Your task to perform on an android device: Go to eBay Image 0: 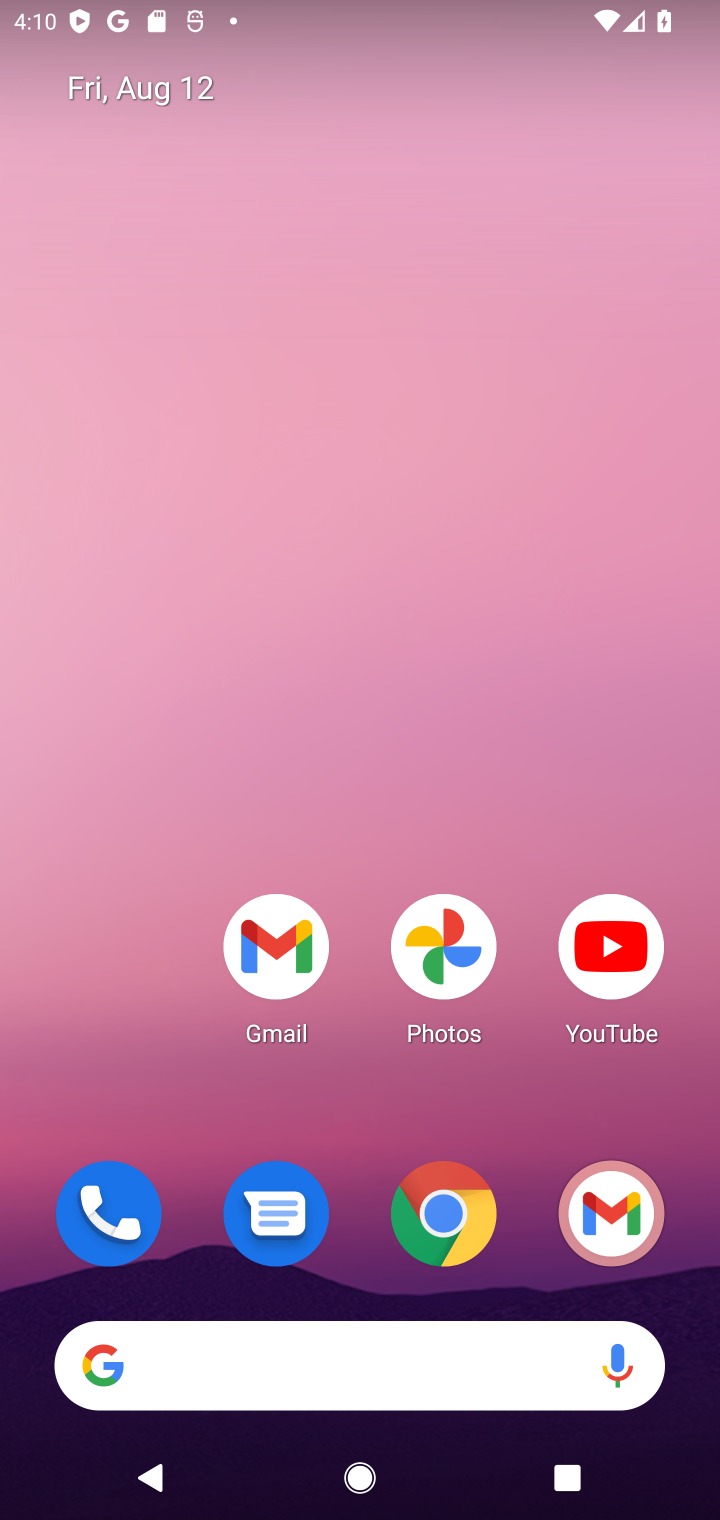
Step 0: drag from (360, 790) to (151, 8)
Your task to perform on an android device: Go to eBay Image 1: 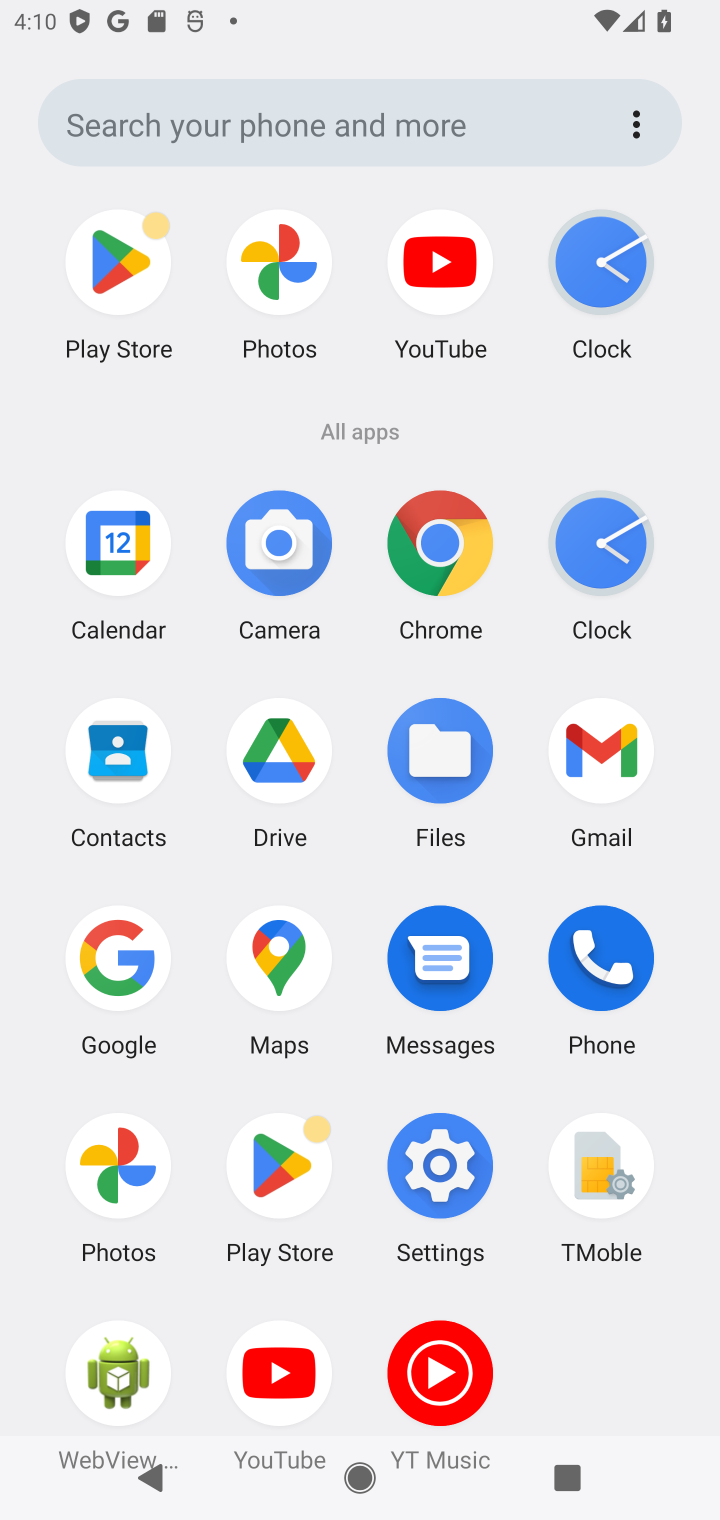
Step 1: click (429, 546)
Your task to perform on an android device: Go to eBay Image 2: 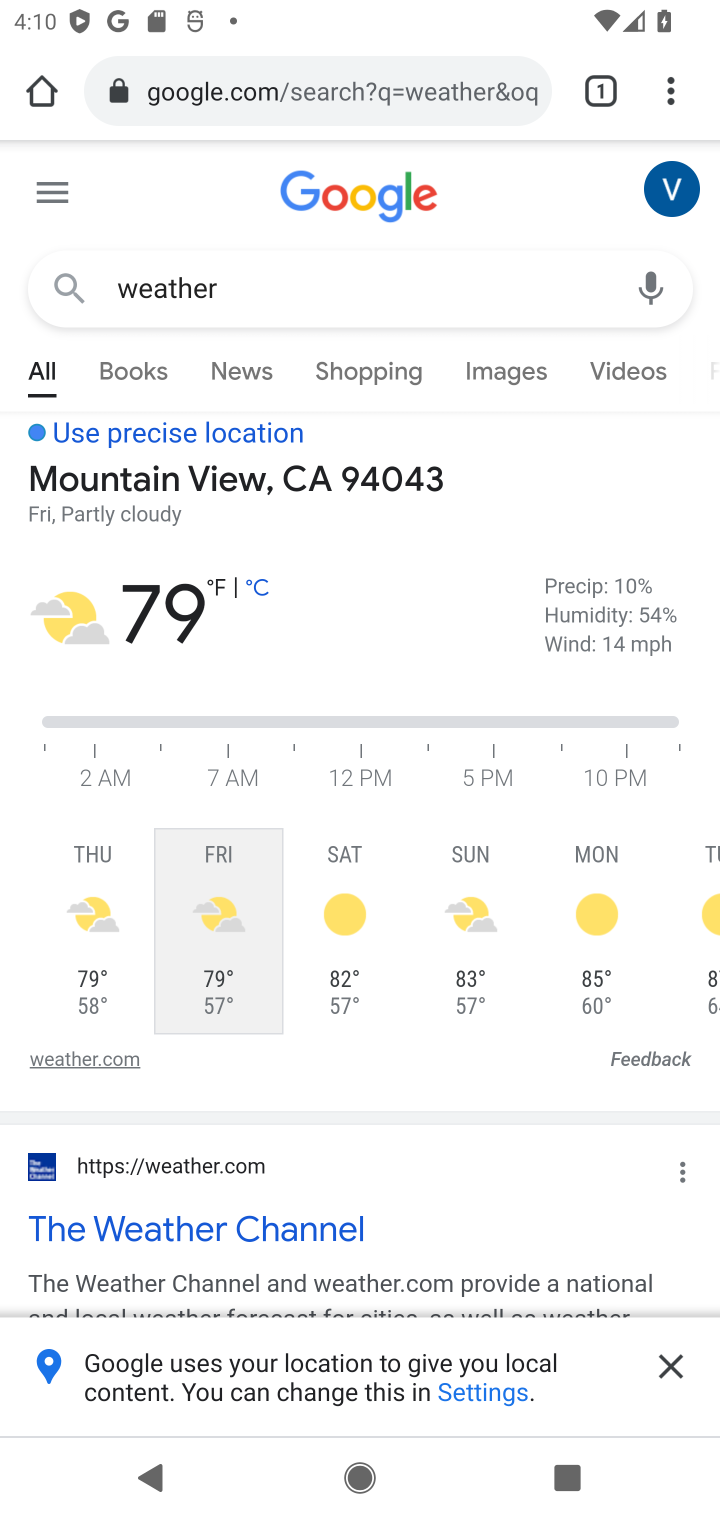
Step 2: click (257, 83)
Your task to perform on an android device: Go to eBay Image 3: 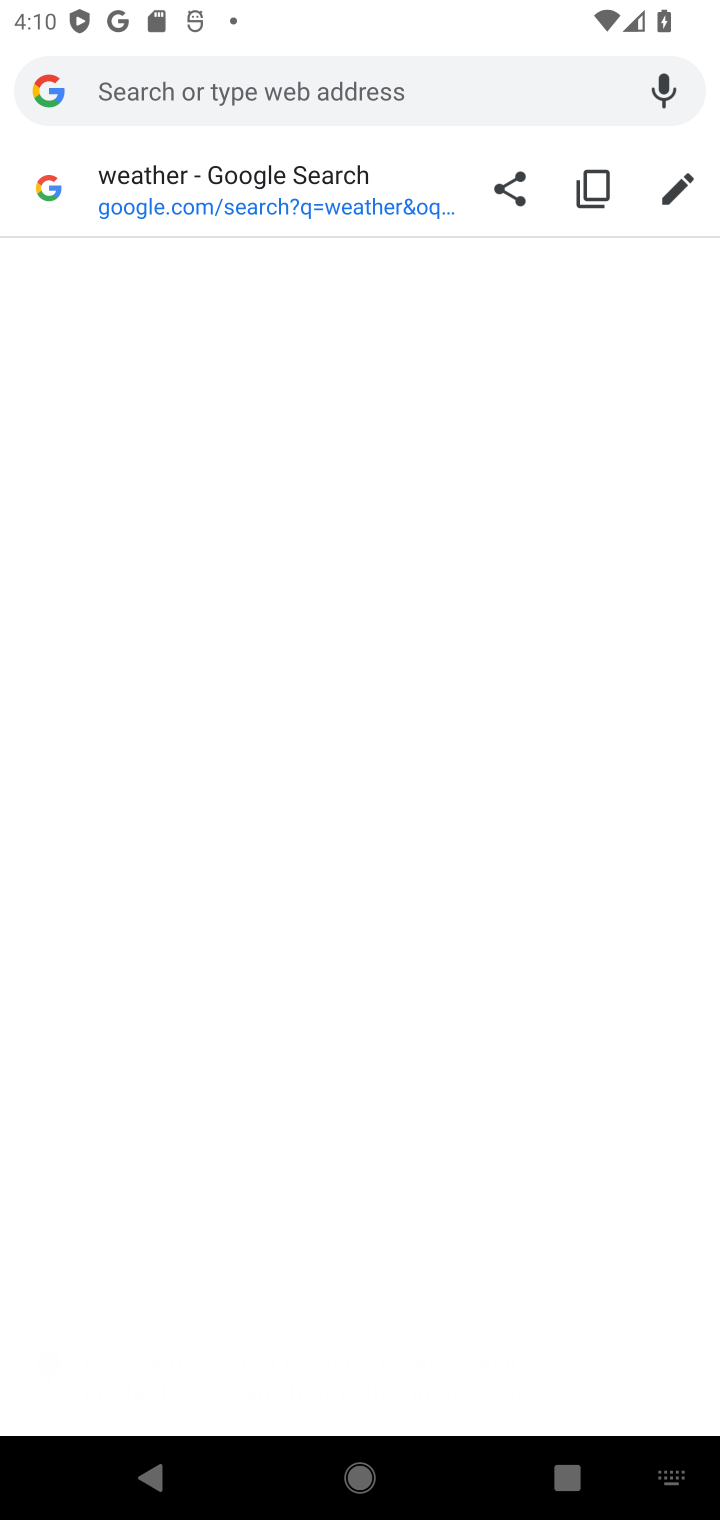
Step 3: type "ebay"
Your task to perform on an android device: Go to eBay Image 4: 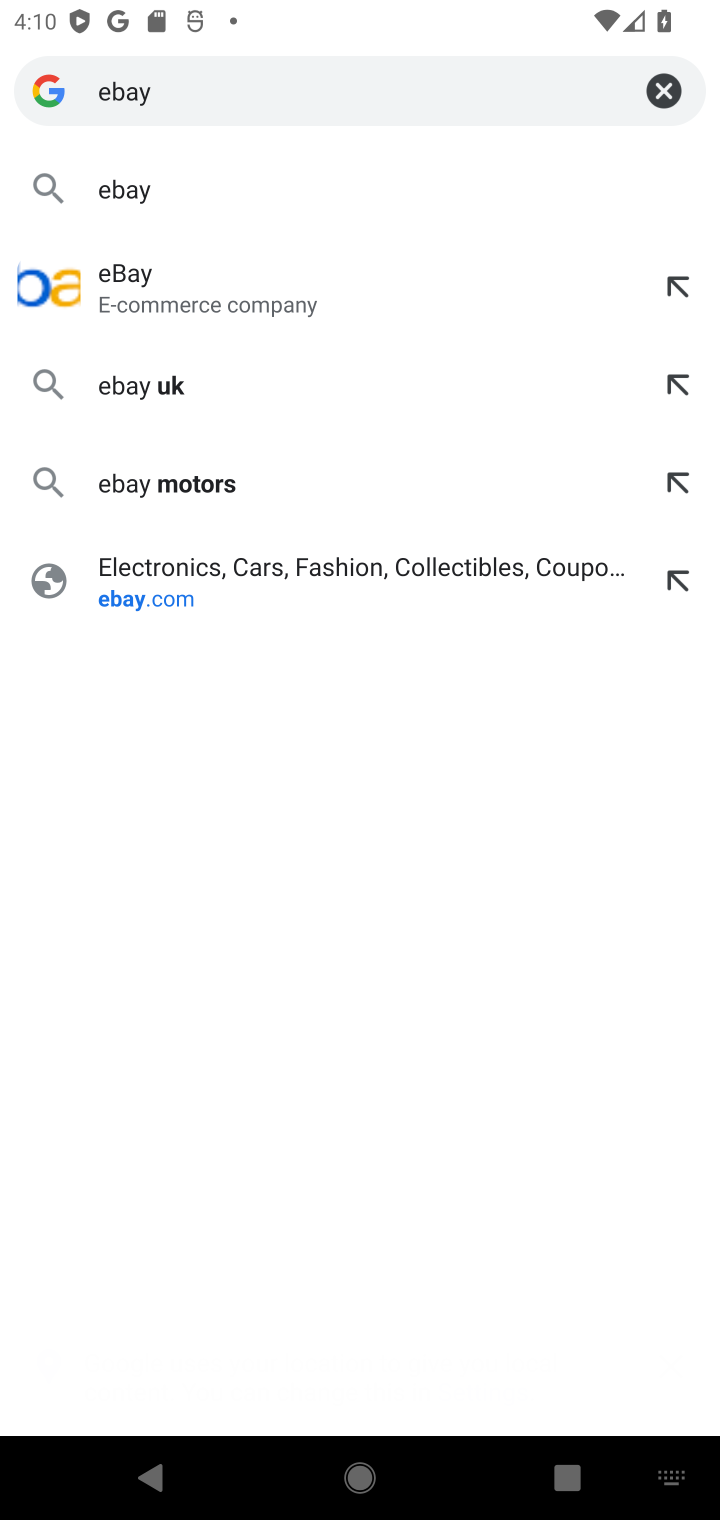
Step 4: click (111, 271)
Your task to perform on an android device: Go to eBay Image 5: 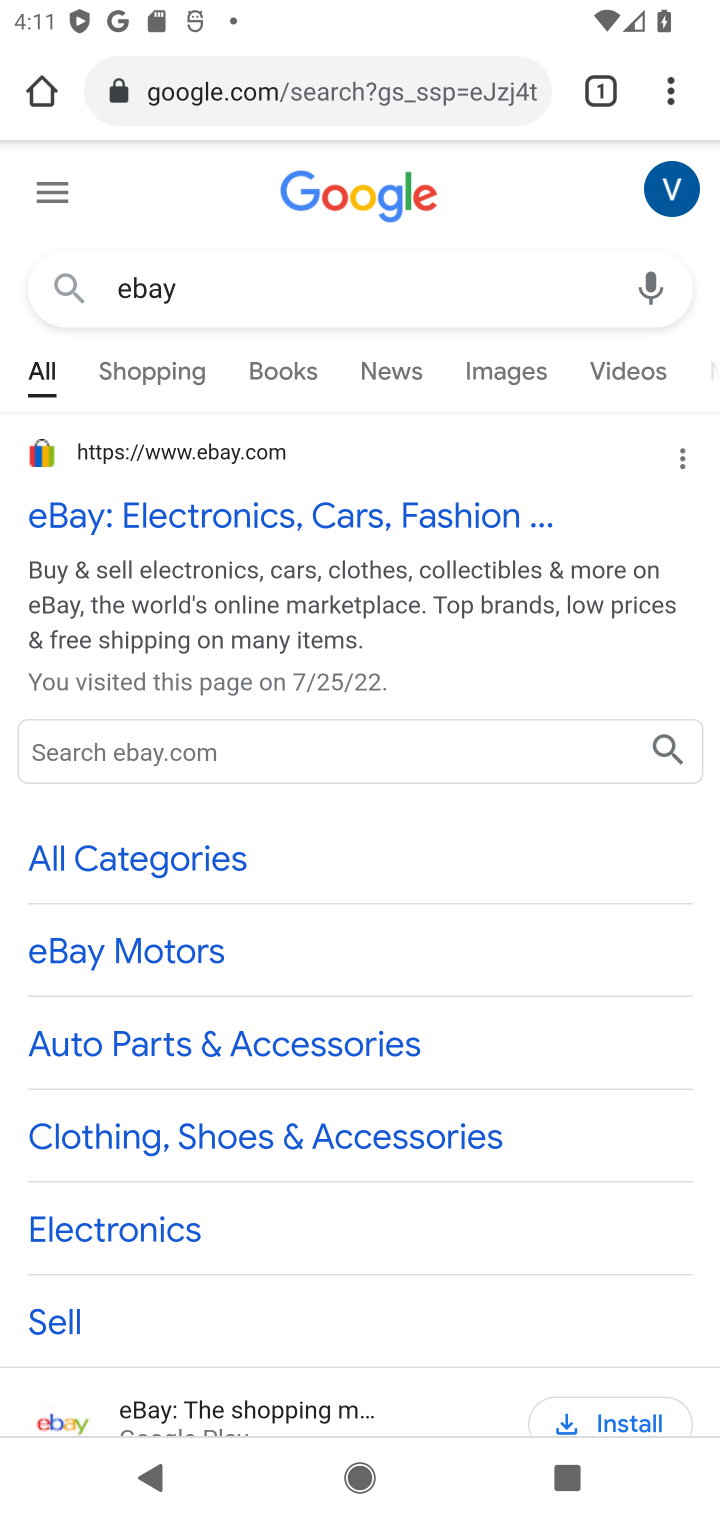
Step 5: drag from (293, 1319) to (346, 525)
Your task to perform on an android device: Go to eBay Image 6: 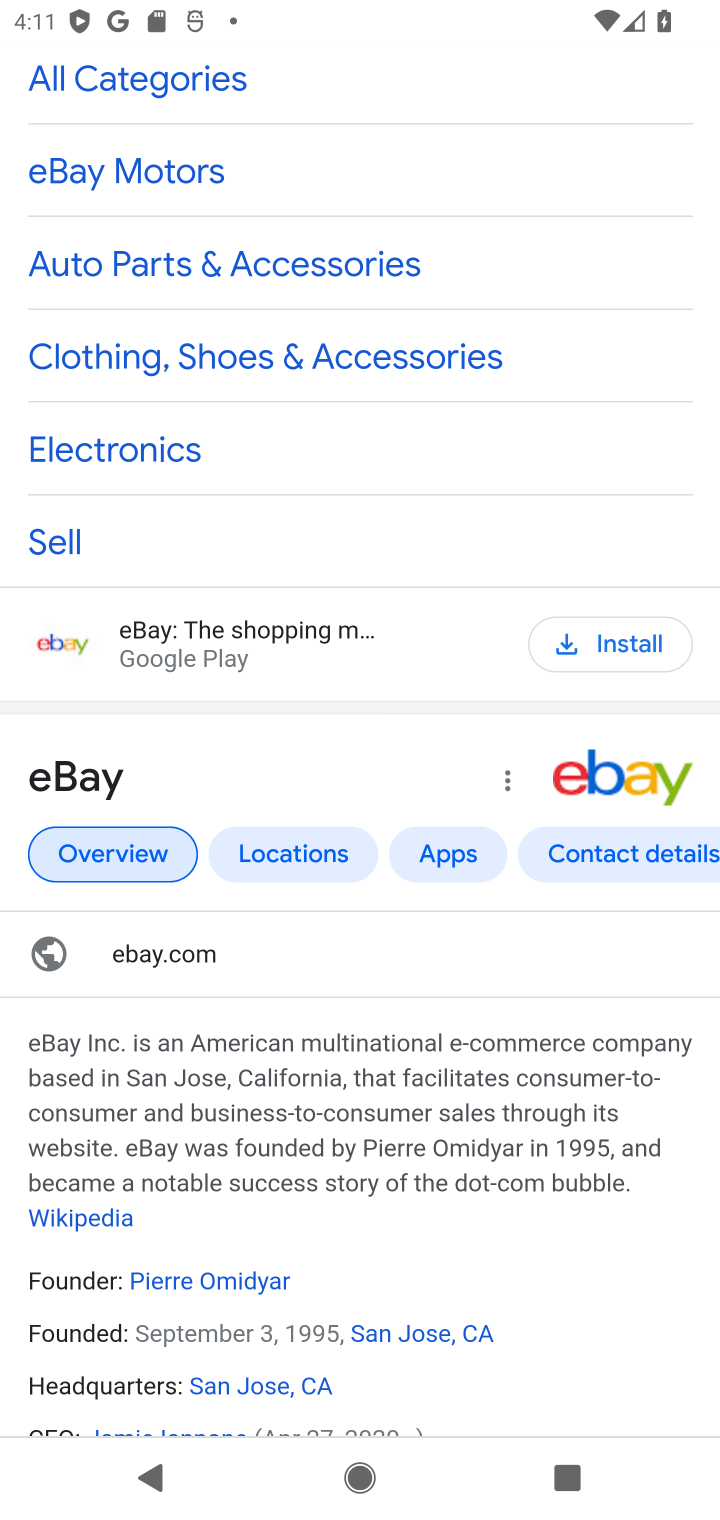
Step 6: drag from (349, 395) to (366, 1168)
Your task to perform on an android device: Go to eBay Image 7: 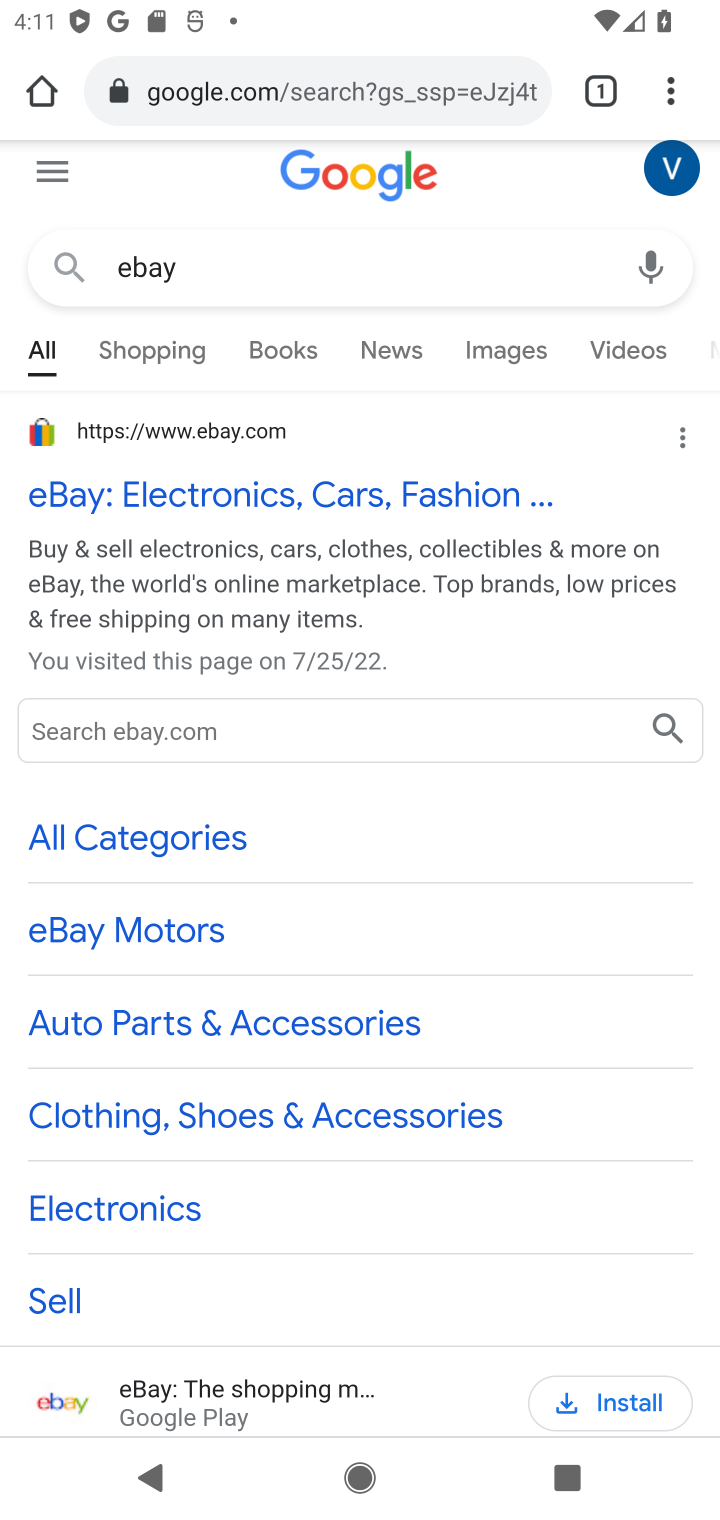
Step 7: click (228, 495)
Your task to perform on an android device: Go to eBay Image 8: 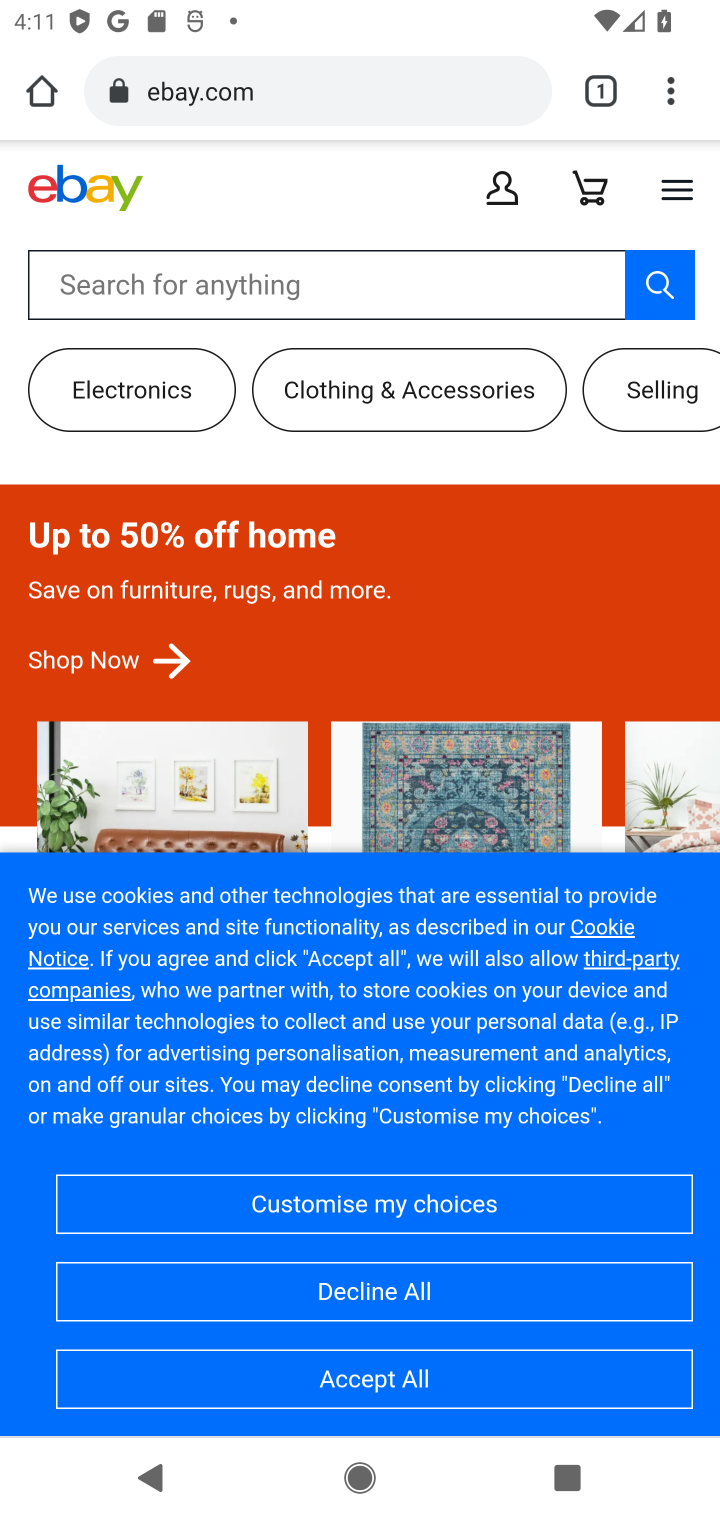
Step 8: task complete